Your task to perform on an android device: visit the assistant section in the google photos Image 0: 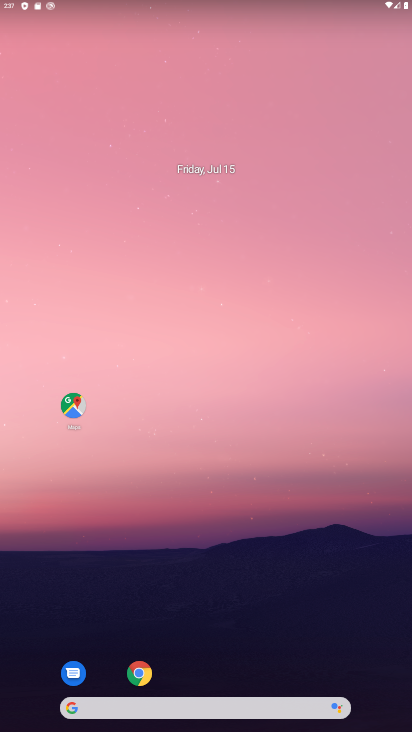
Step 0: drag from (310, 481) to (314, 186)
Your task to perform on an android device: visit the assistant section in the google photos Image 1: 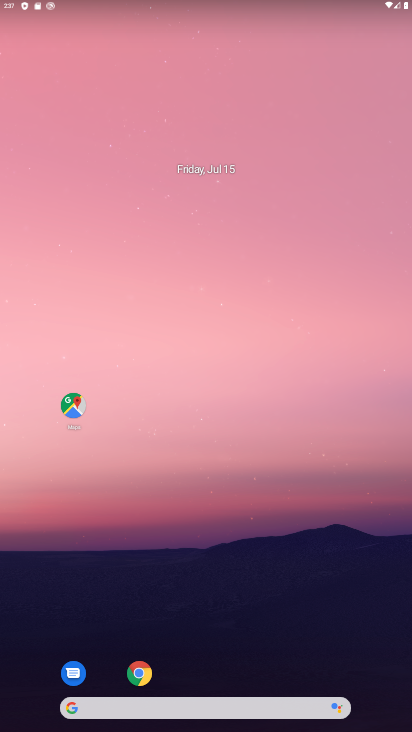
Step 1: drag from (331, 650) to (306, 66)
Your task to perform on an android device: visit the assistant section in the google photos Image 2: 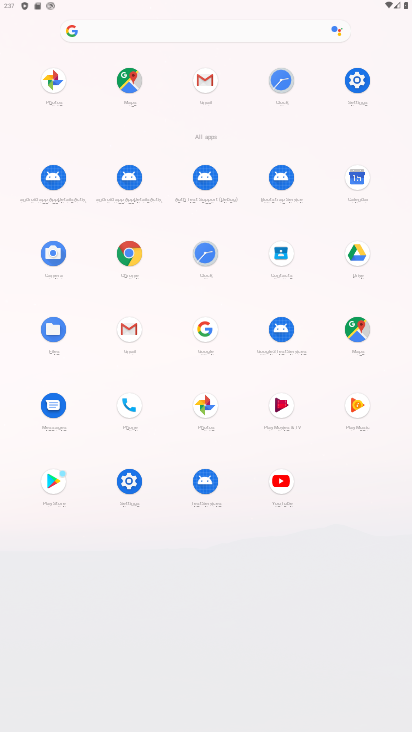
Step 2: click (206, 404)
Your task to perform on an android device: visit the assistant section in the google photos Image 3: 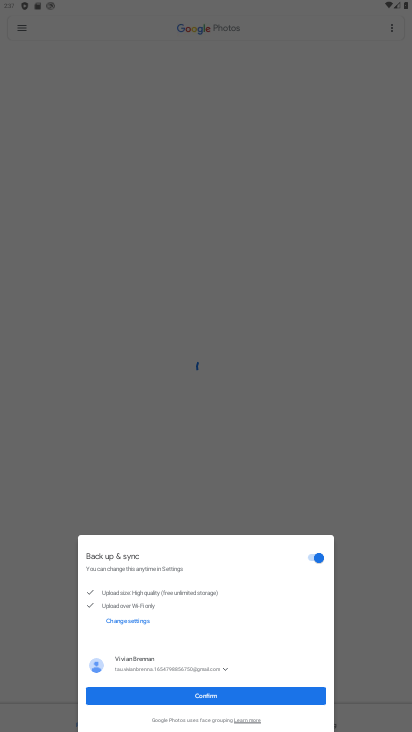
Step 3: click (200, 696)
Your task to perform on an android device: visit the assistant section in the google photos Image 4: 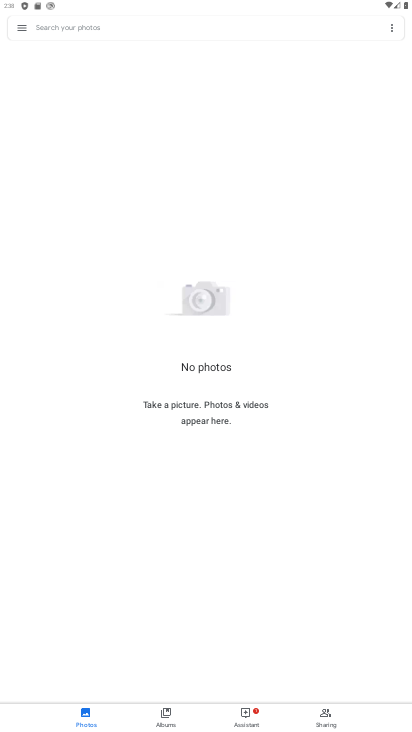
Step 4: click (246, 715)
Your task to perform on an android device: visit the assistant section in the google photos Image 5: 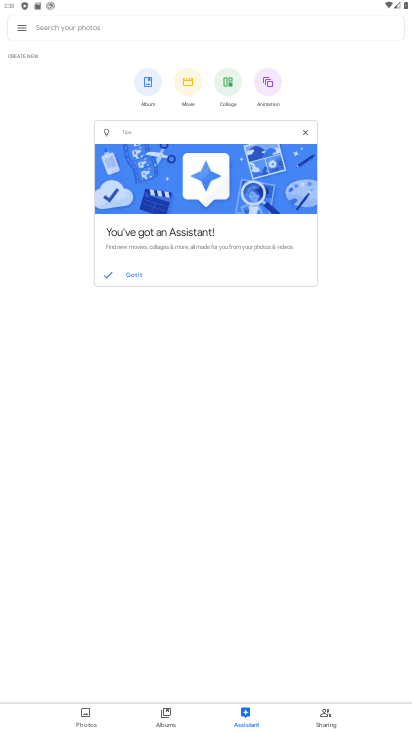
Step 5: task complete